Your task to perform on an android device: open chrome and create a bookmark for the current page Image 0: 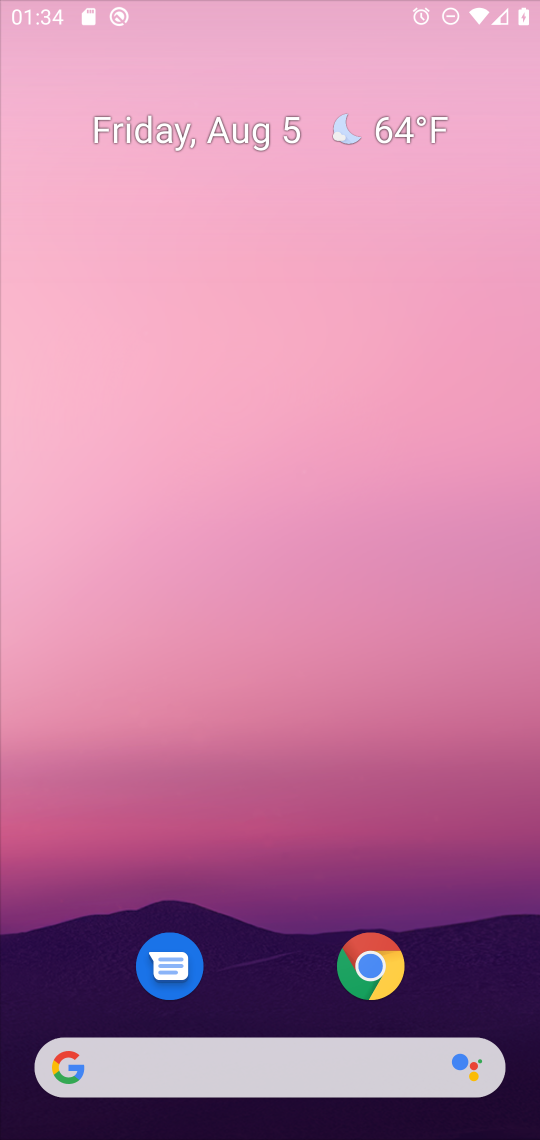
Step 0: press home button
Your task to perform on an android device: open chrome and create a bookmark for the current page Image 1: 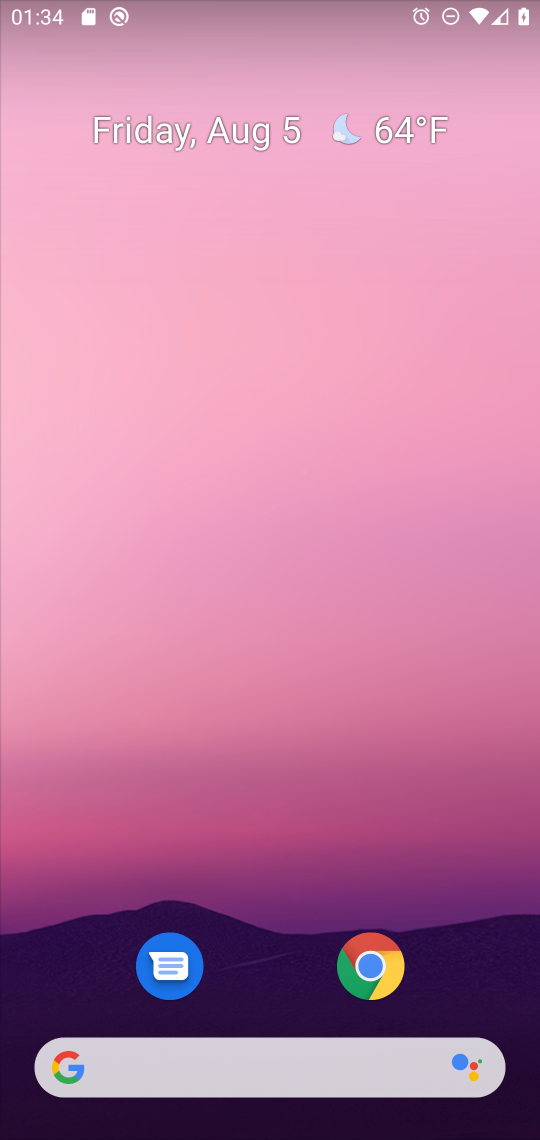
Step 1: click (373, 967)
Your task to perform on an android device: open chrome and create a bookmark for the current page Image 2: 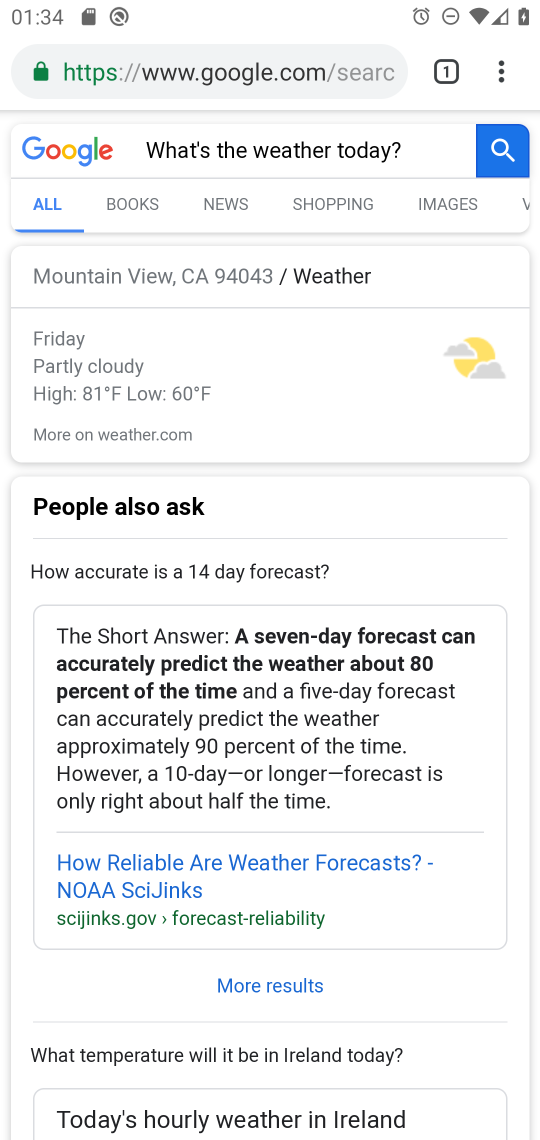
Step 2: click (496, 65)
Your task to perform on an android device: open chrome and create a bookmark for the current page Image 3: 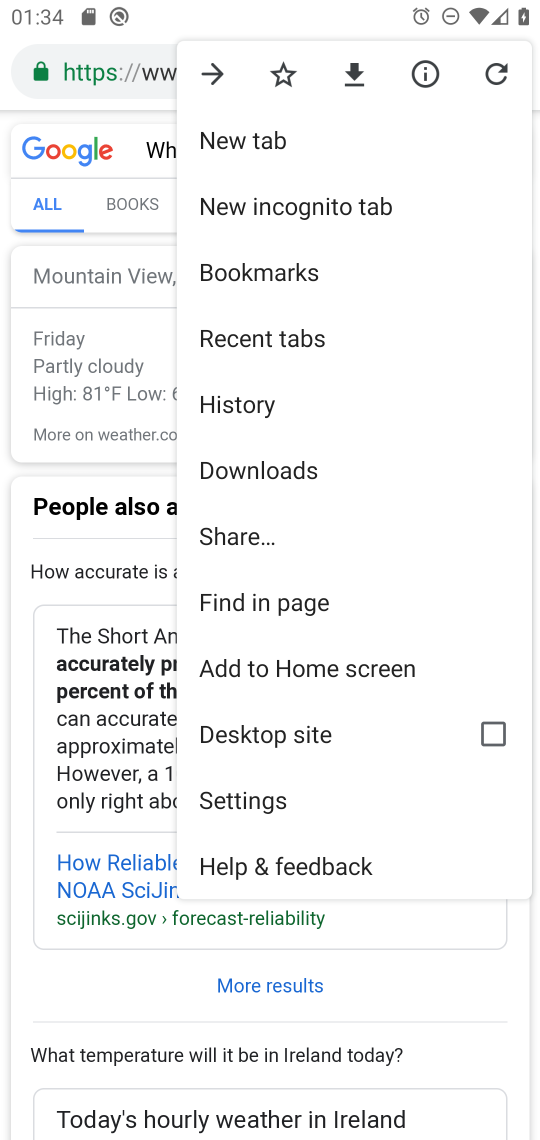
Step 3: click (283, 73)
Your task to perform on an android device: open chrome and create a bookmark for the current page Image 4: 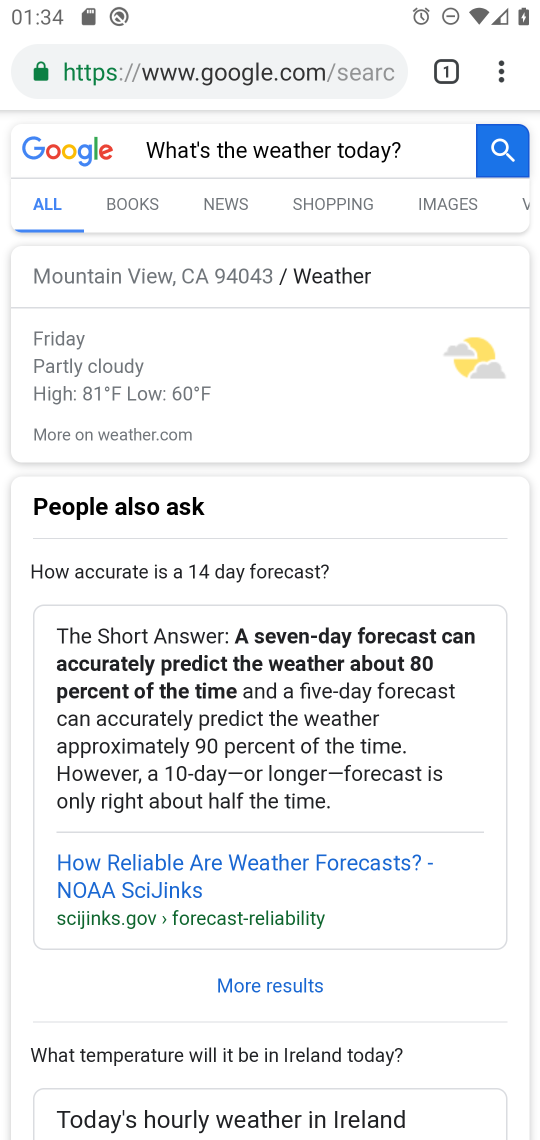
Step 4: task complete